Your task to perform on an android device: Open calendar and show me the first week of next month Image 0: 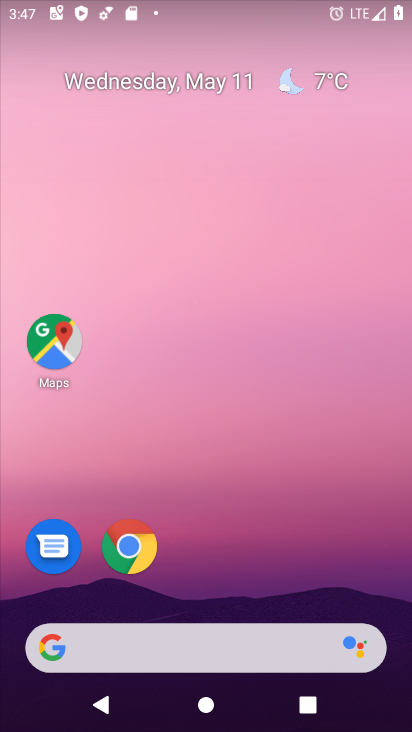
Step 0: drag from (337, 615) to (309, 5)
Your task to perform on an android device: Open calendar and show me the first week of next month Image 1: 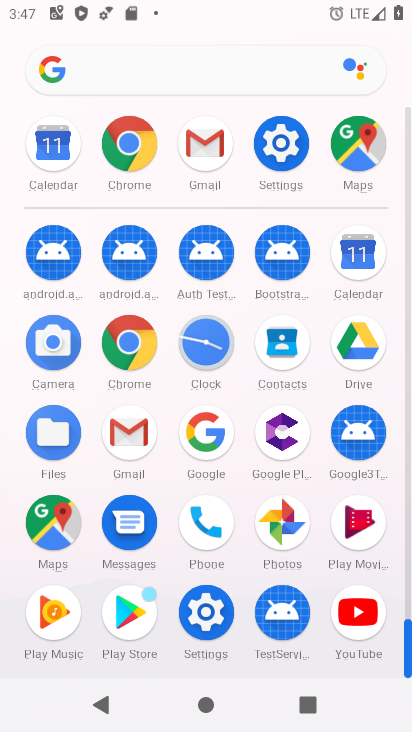
Step 1: click (377, 260)
Your task to perform on an android device: Open calendar and show me the first week of next month Image 2: 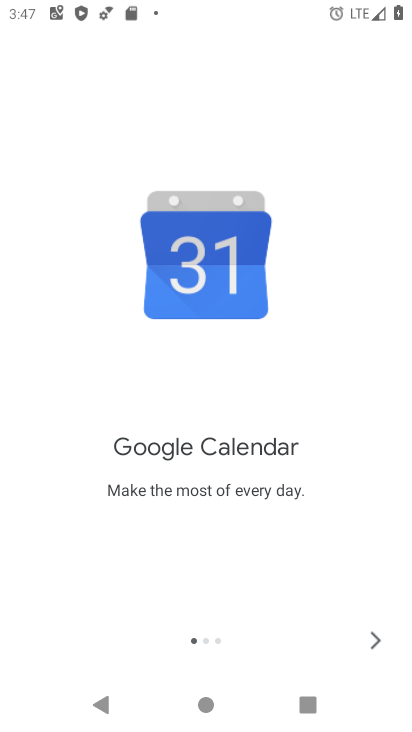
Step 2: click (379, 641)
Your task to perform on an android device: Open calendar and show me the first week of next month Image 3: 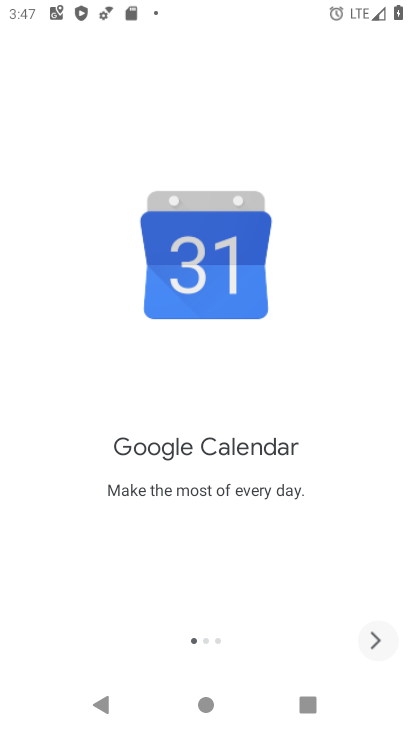
Step 3: click (379, 641)
Your task to perform on an android device: Open calendar and show me the first week of next month Image 4: 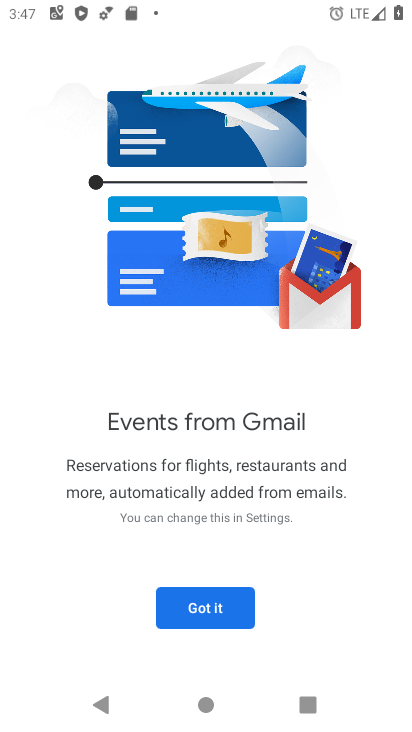
Step 4: click (379, 641)
Your task to perform on an android device: Open calendar and show me the first week of next month Image 5: 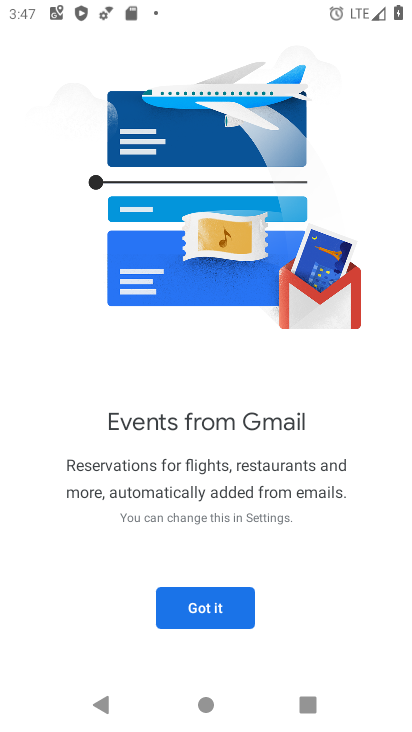
Step 5: click (223, 606)
Your task to perform on an android device: Open calendar and show me the first week of next month Image 6: 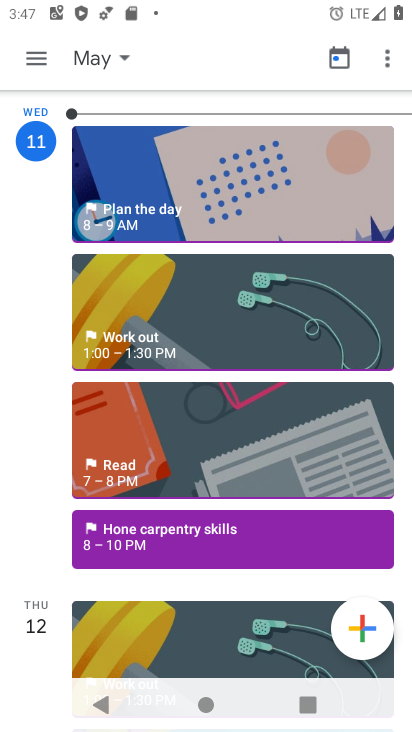
Step 6: click (117, 53)
Your task to perform on an android device: Open calendar and show me the first week of next month Image 7: 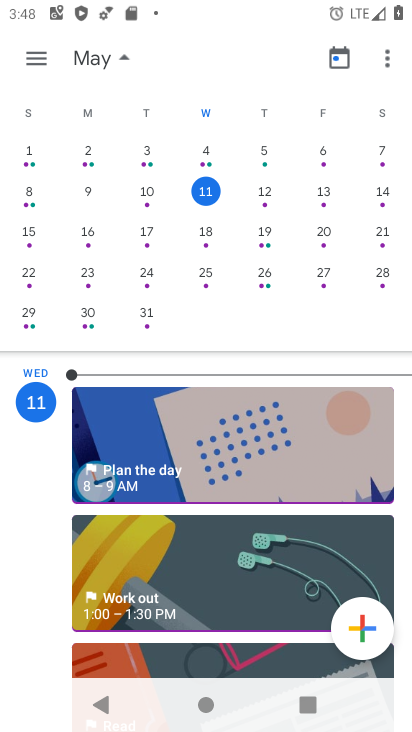
Step 7: drag from (363, 216) to (95, 289)
Your task to perform on an android device: Open calendar and show me the first week of next month Image 8: 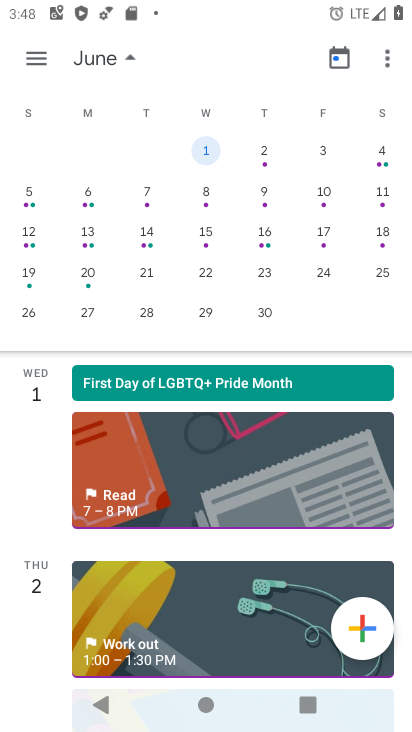
Step 8: click (307, 148)
Your task to perform on an android device: Open calendar and show me the first week of next month Image 9: 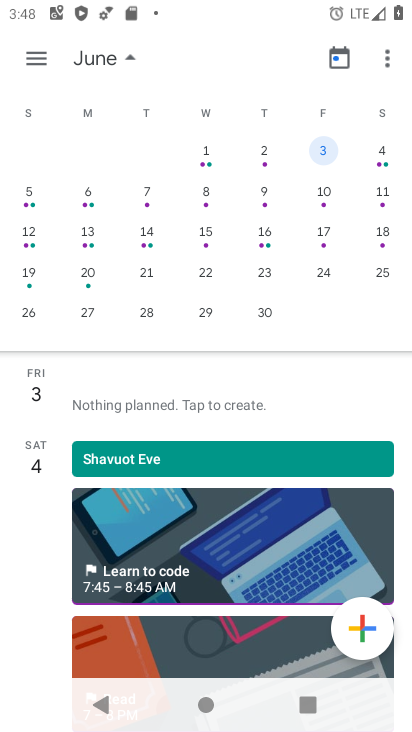
Step 9: task complete